Your task to perform on an android device: Open location settings Image 0: 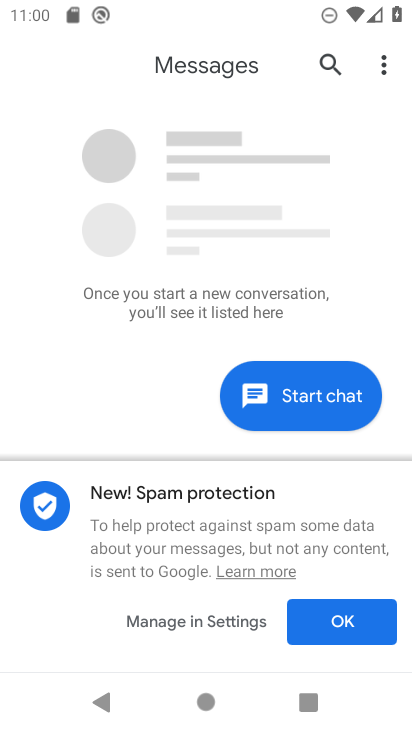
Step 0: press home button
Your task to perform on an android device: Open location settings Image 1: 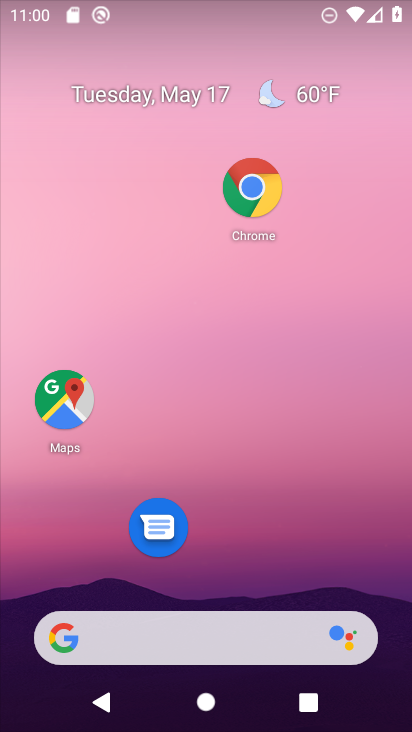
Step 1: drag from (251, 573) to (285, 153)
Your task to perform on an android device: Open location settings Image 2: 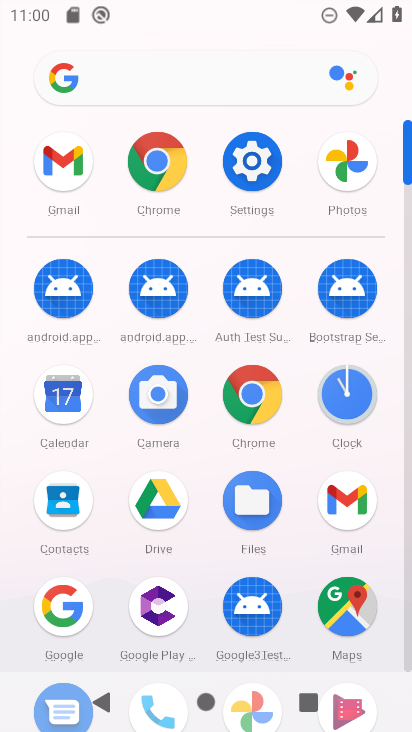
Step 2: click (251, 198)
Your task to perform on an android device: Open location settings Image 3: 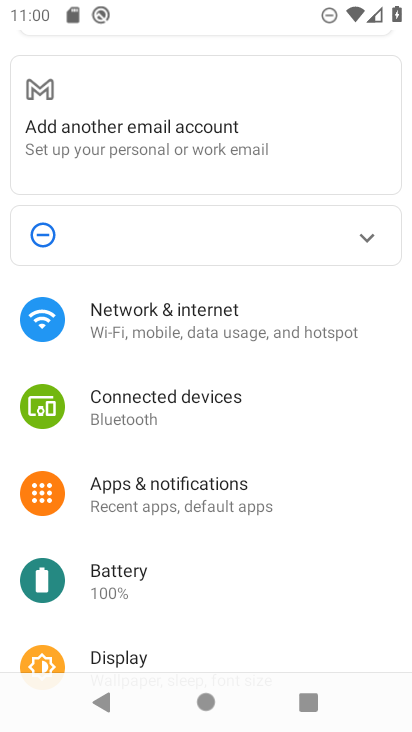
Step 3: drag from (177, 564) to (226, 212)
Your task to perform on an android device: Open location settings Image 4: 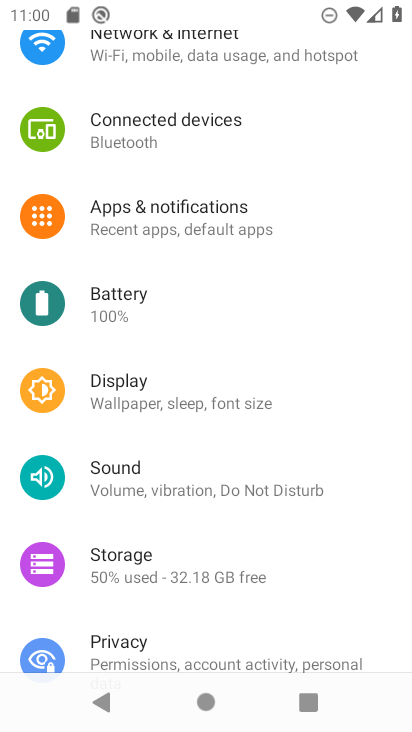
Step 4: drag from (210, 592) to (239, 233)
Your task to perform on an android device: Open location settings Image 5: 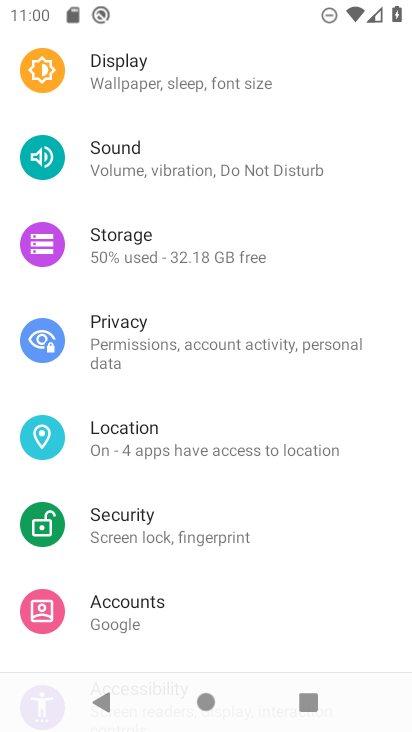
Step 5: click (237, 450)
Your task to perform on an android device: Open location settings Image 6: 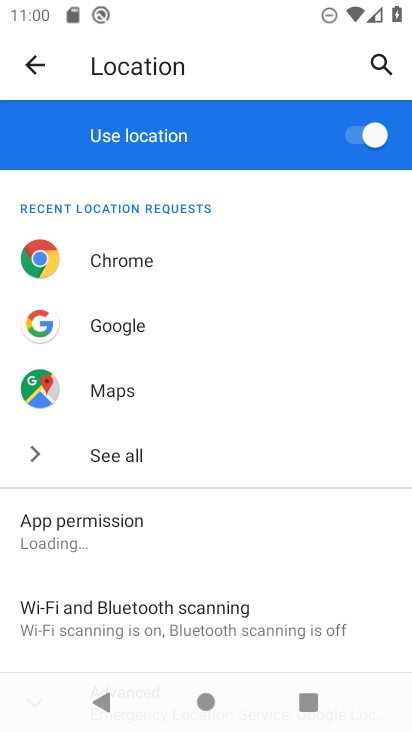
Step 6: click (370, 142)
Your task to perform on an android device: Open location settings Image 7: 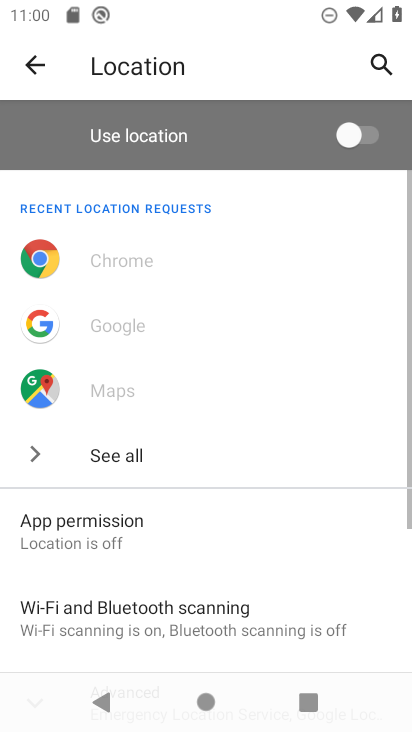
Step 7: click (370, 142)
Your task to perform on an android device: Open location settings Image 8: 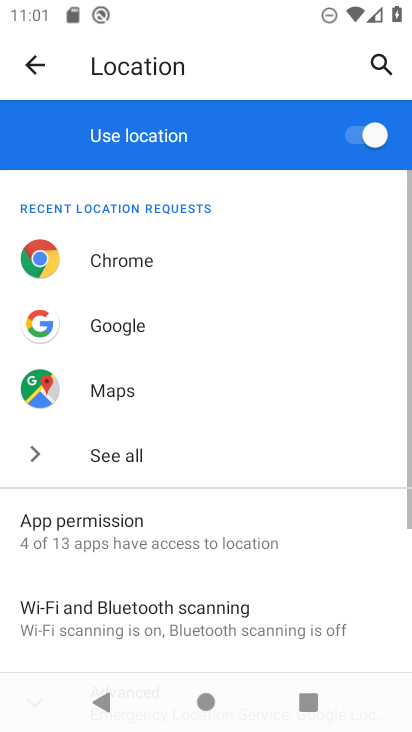
Step 8: task complete